Your task to perform on an android device: Search for pizza restaurants on Maps Image 0: 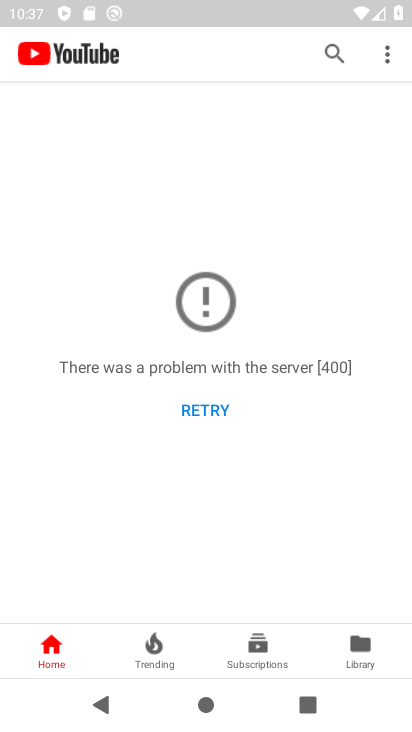
Step 0: press home button
Your task to perform on an android device: Search for pizza restaurants on Maps Image 1: 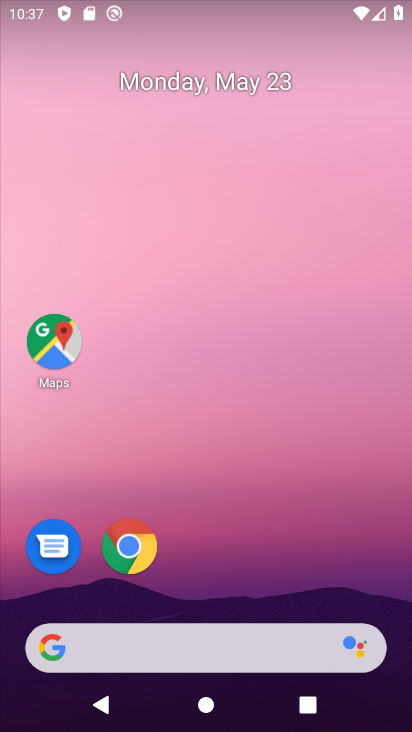
Step 1: click (69, 344)
Your task to perform on an android device: Search for pizza restaurants on Maps Image 2: 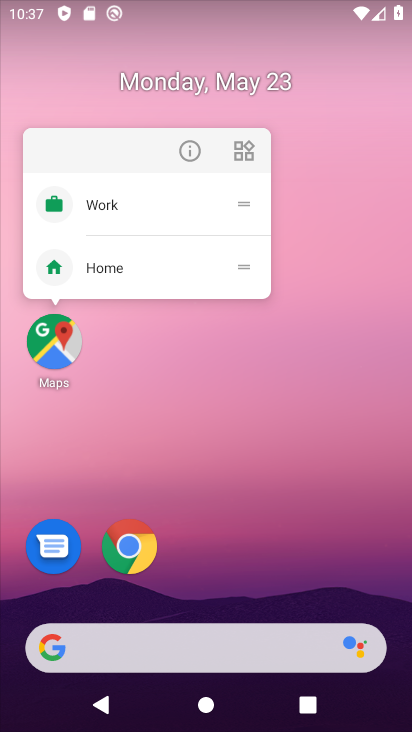
Step 2: click (59, 344)
Your task to perform on an android device: Search for pizza restaurants on Maps Image 3: 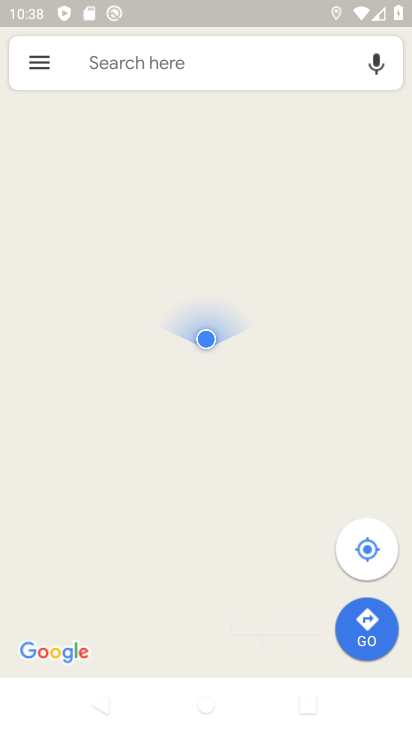
Step 3: click (158, 60)
Your task to perform on an android device: Search for pizza restaurants on Maps Image 4: 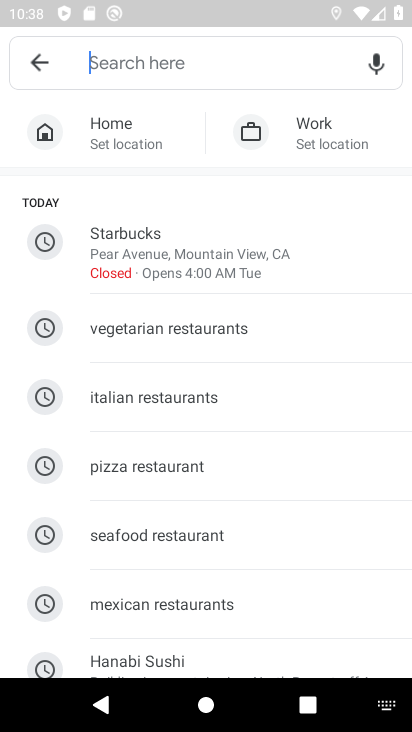
Step 4: type "Pizza restaurants"
Your task to perform on an android device: Search for pizza restaurants on Maps Image 5: 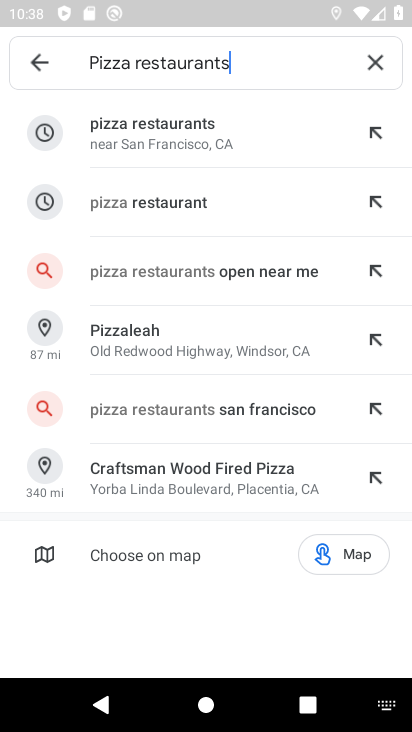
Step 5: click (271, 157)
Your task to perform on an android device: Search for pizza restaurants on Maps Image 6: 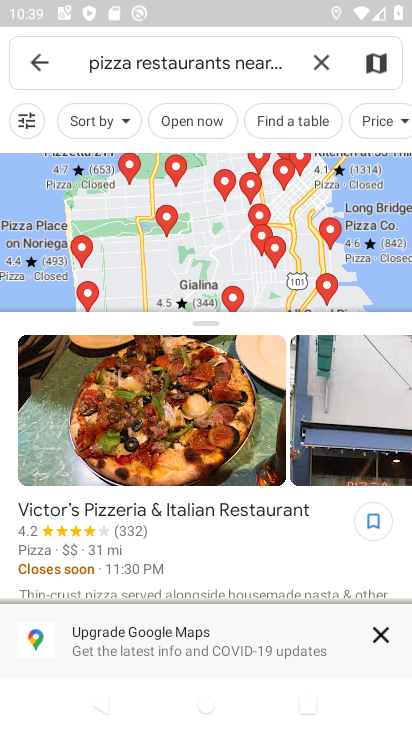
Step 6: task complete